Your task to perform on an android device: Open Google Maps and go to "Timeline" Image 0: 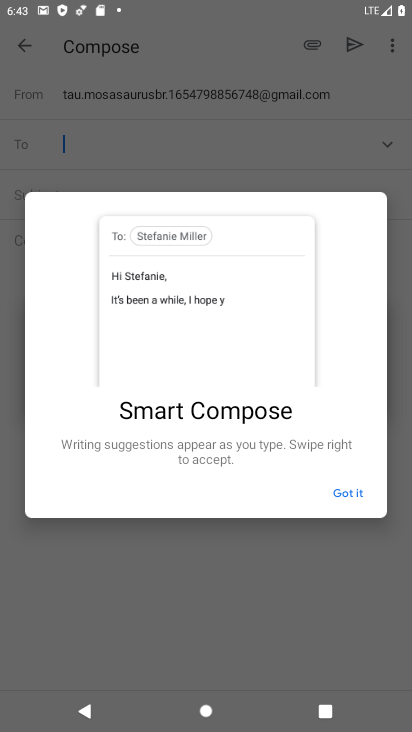
Step 0: press home button
Your task to perform on an android device: Open Google Maps and go to "Timeline" Image 1: 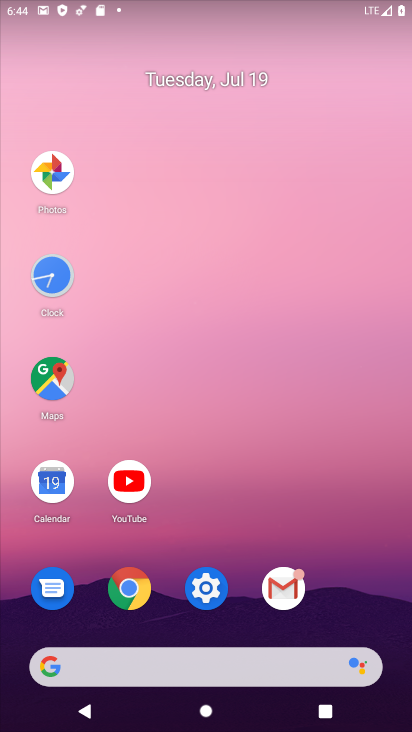
Step 1: click (51, 382)
Your task to perform on an android device: Open Google Maps and go to "Timeline" Image 2: 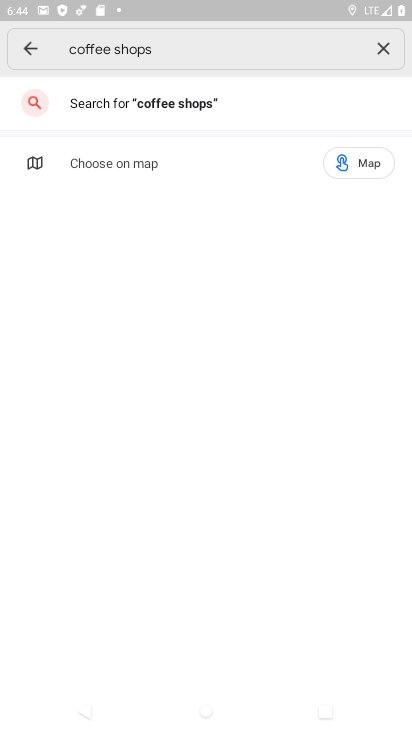
Step 2: click (26, 40)
Your task to perform on an android device: Open Google Maps and go to "Timeline" Image 3: 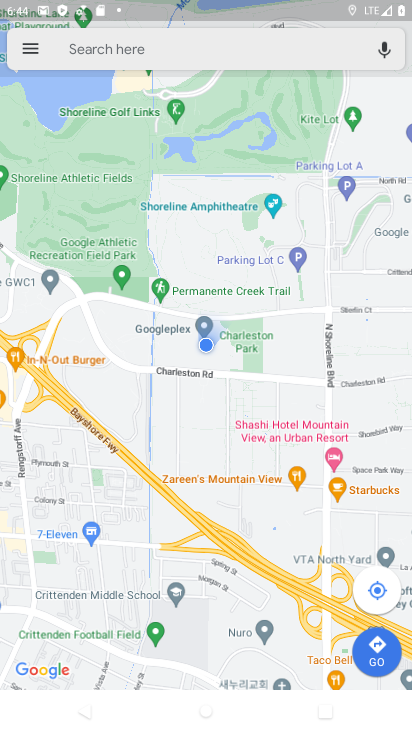
Step 3: click (26, 43)
Your task to perform on an android device: Open Google Maps and go to "Timeline" Image 4: 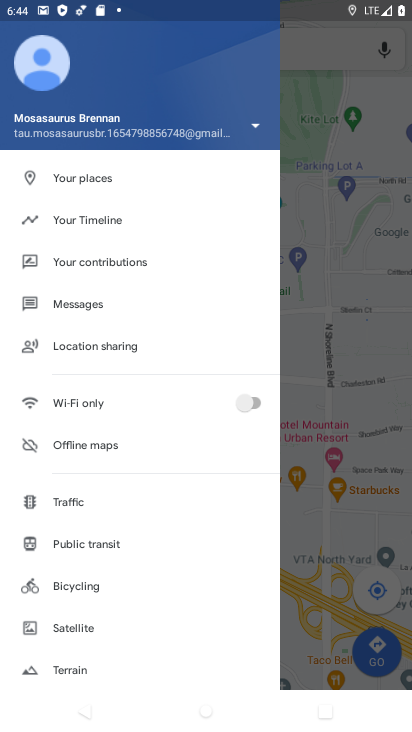
Step 4: click (87, 217)
Your task to perform on an android device: Open Google Maps and go to "Timeline" Image 5: 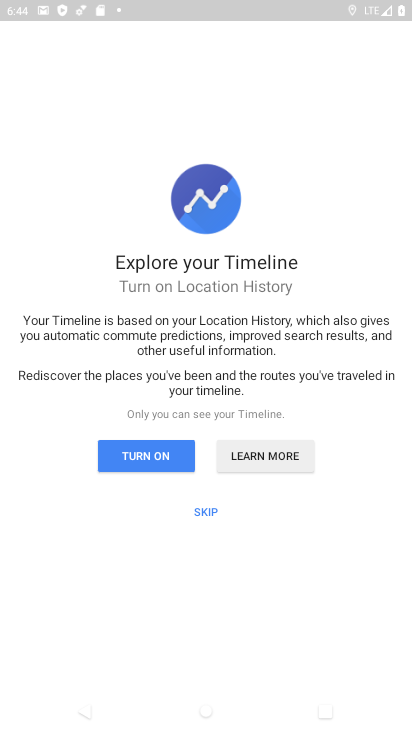
Step 5: click (147, 456)
Your task to perform on an android device: Open Google Maps and go to "Timeline" Image 6: 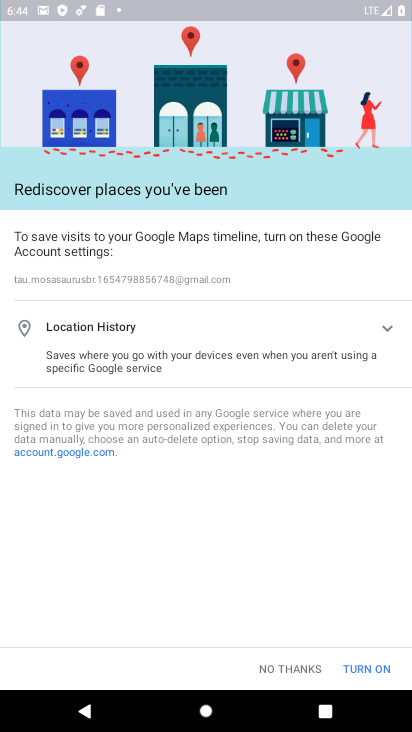
Step 6: click (372, 667)
Your task to perform on an android device: Open Google Maps and go to "Timeline" Image 7: 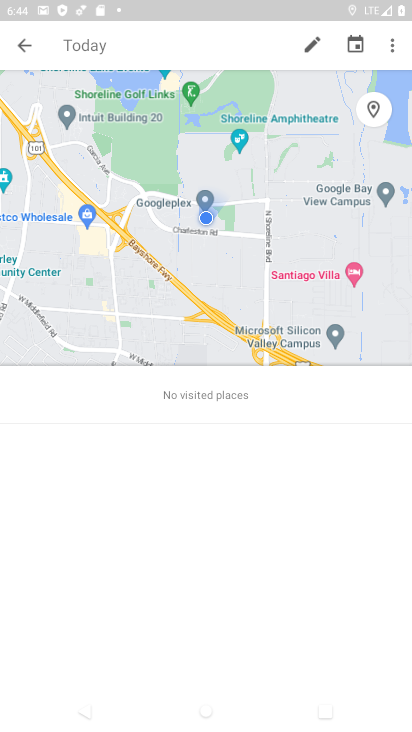
Step 7: task complete